Your task to perform on an android device: turn off airplane mode Image 0: 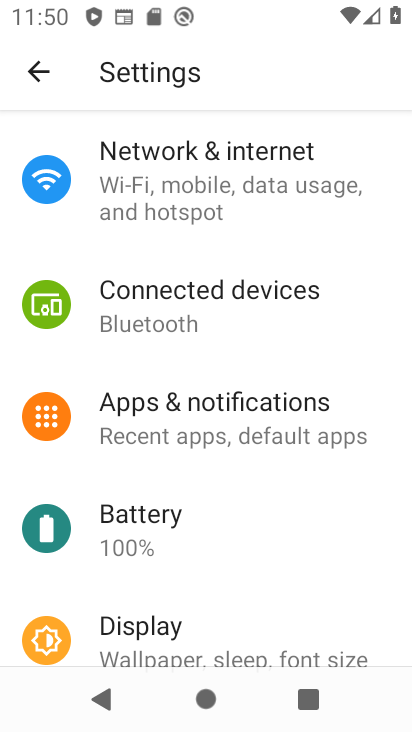
Step 0: press home button
Your task to perform on an android device: turn off airplane mode Image 1: 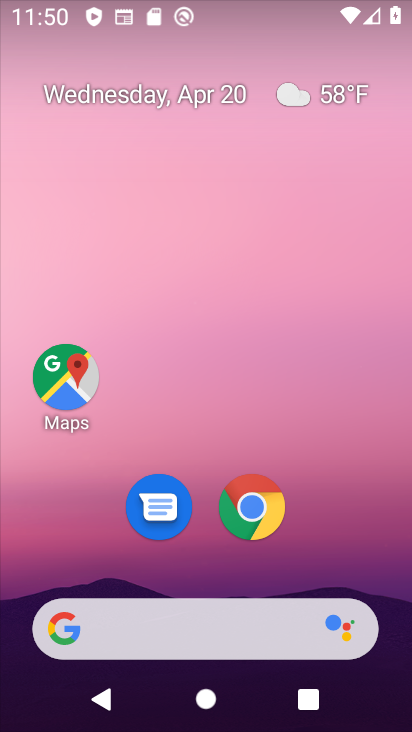
Step 1: drag from (350, 482) to (340, 100)
Your task to perform on an android device: turn off airplane mode Image 2: 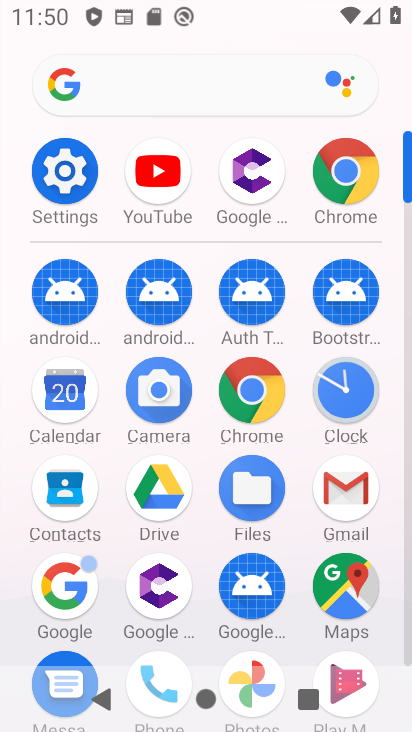
Step 2: click (73, 173)
Your task to perform on an android device: turn off airplane mode Image 3: 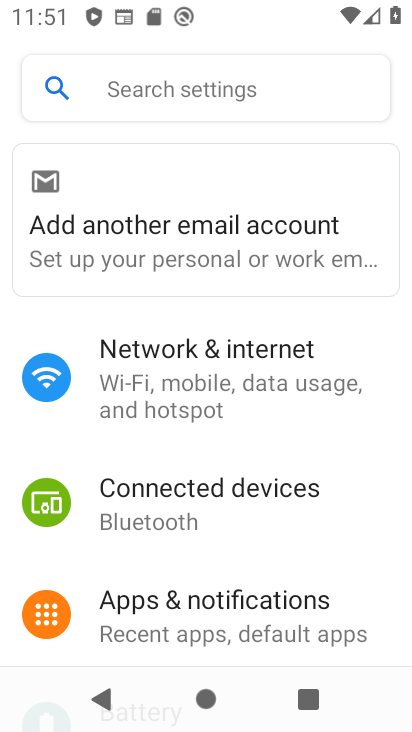
Step 3: drag from (375, 521) to (383, 341)
Your task to perform on an android device: turn off airplane mode Image 4: 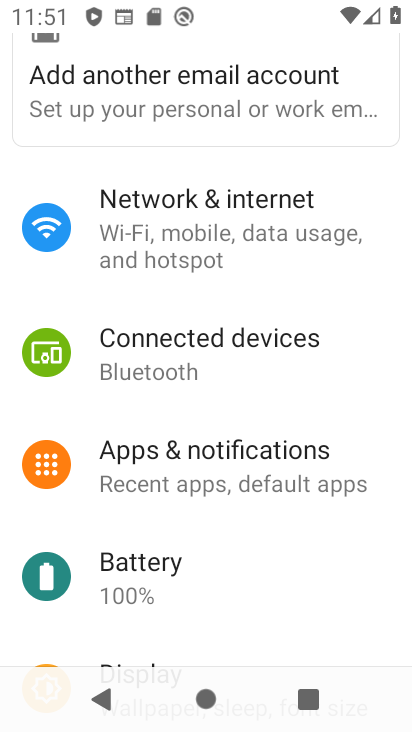
Step 4: drag from (378, 540) to (371, 304)
Your task to perform on an android device: turn off airplane mode Image 5: 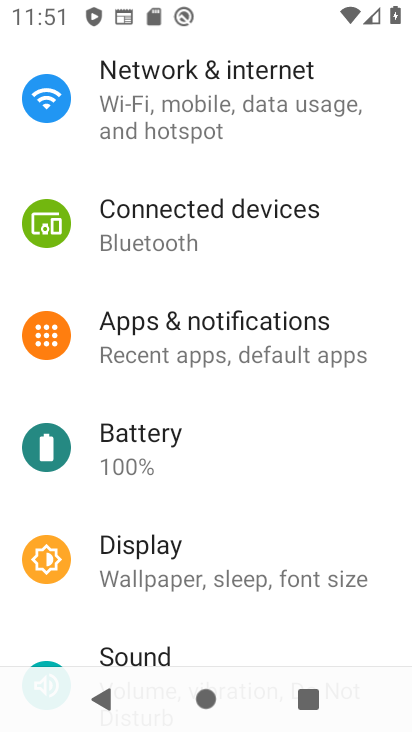
Step 5: drag from (362, 567) to (367, 342)
Your task to perform on an android device: turn off airplane mode Image 6: 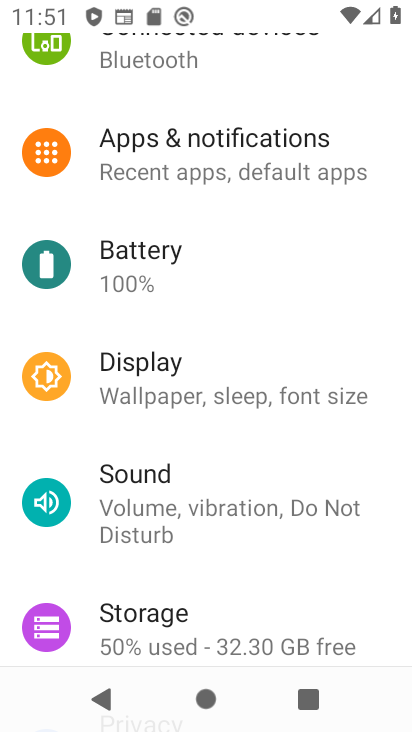
Step 6: drag from (344, 574) to (357, 344)
Your task to perform on an android device: turn off airplane mode Image 7: 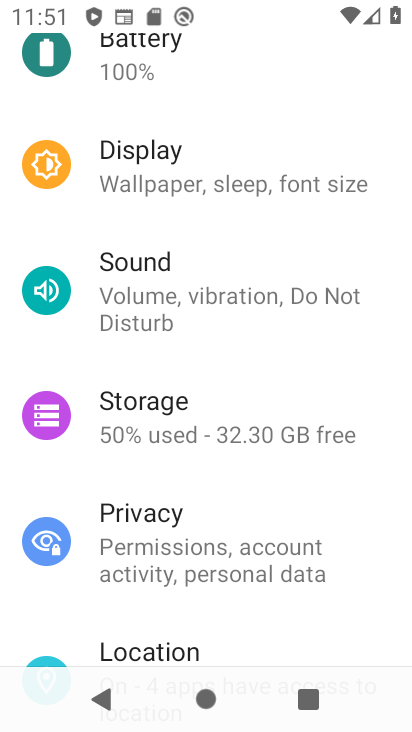
Step 7: drag from (360, 542) to (367, 344)
Your task to perform on an android device: turn off airplane mode Image 8: 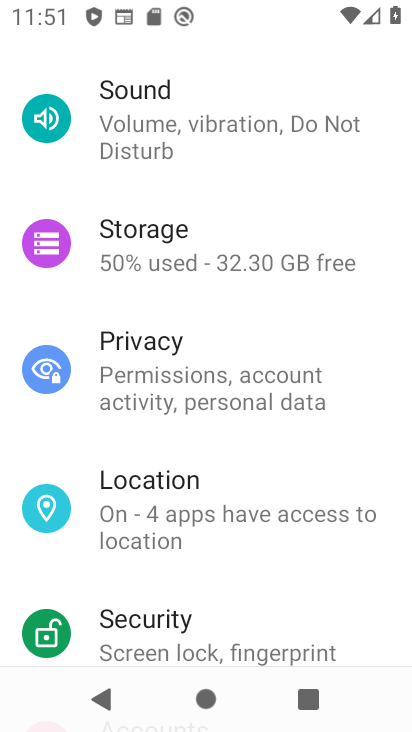
Step 8: drag from (361, 527) to (371, 389)
Your task to perform on an android device: turn off airplane mode Image 9: 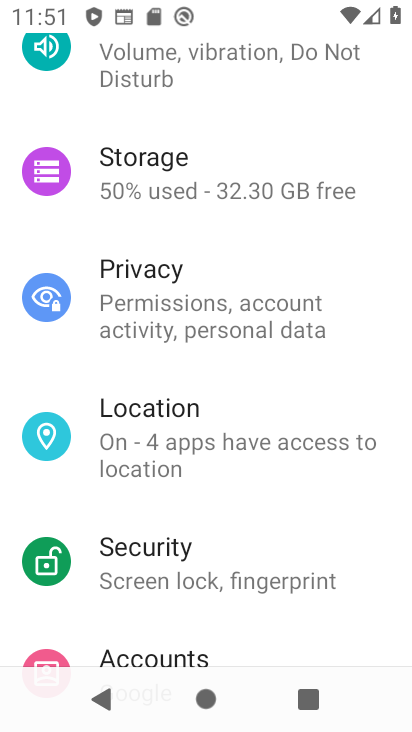
Step 9: drag from (377, 503) to (380, 291)
Your task to perform on an android device: turn off airplane mode Image 10: 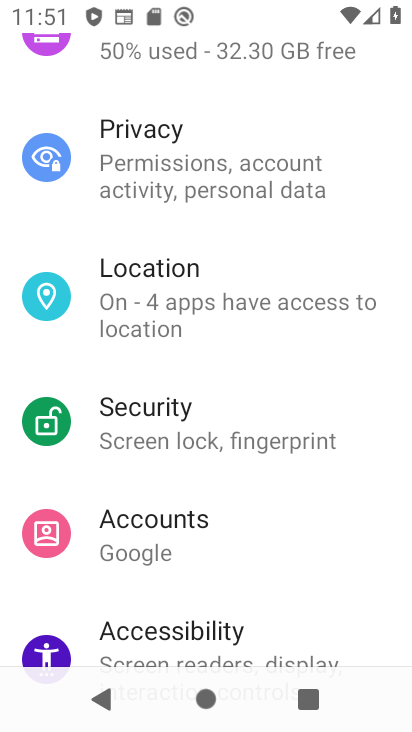
Step 10: drag from (377, 203) to (331, 433)
Your task to perform on an android device: turn off airplane mode Image 11: 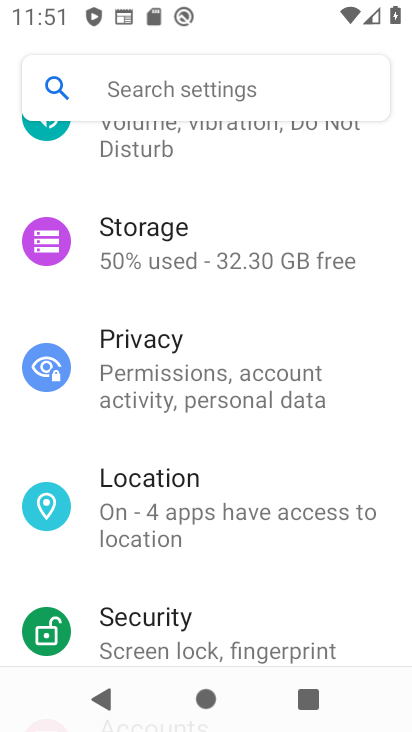
Step 11: drag from (377, 206) to (352, 321)
Your task to perform on an android device: turn off airplane mode Image 12: 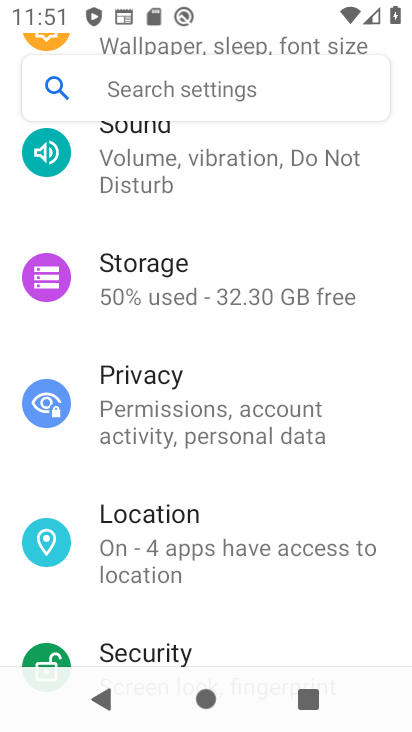
Step 12: drag from (379, 217) to (365, 328)
Your task to perform on an android device: turn off airplane mode Image 13: 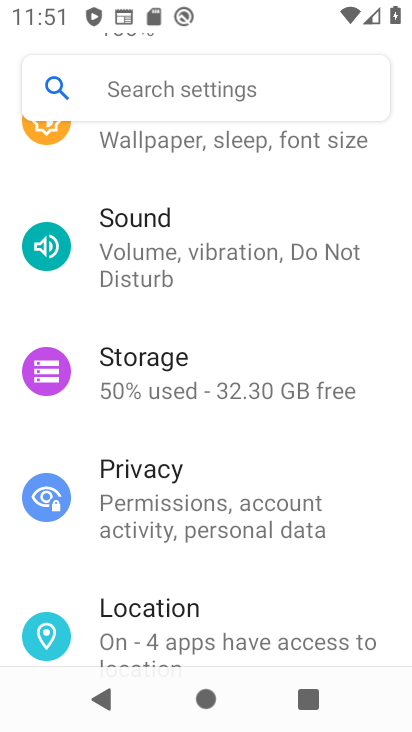
Step 13: click (373, 273)
Your task to perform on an android device: turn off airplane mode Image 14: 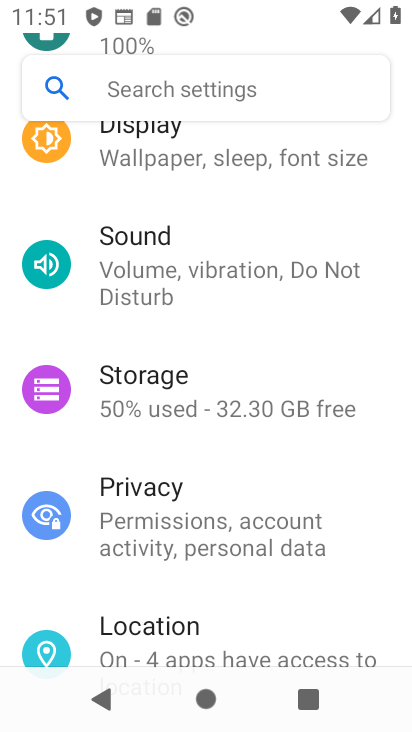
Step 14: drag from (381, 276) to (379, 411)
Your task to perform on an android device: turn off airplane mode Image 15: 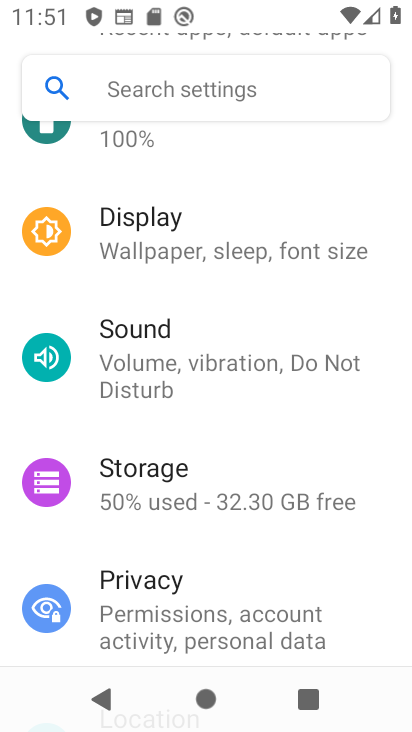
Step 15: drag from (382, 265) to (384, 322)
Your task to perform on an android device: turn off airplane mode Image 16: 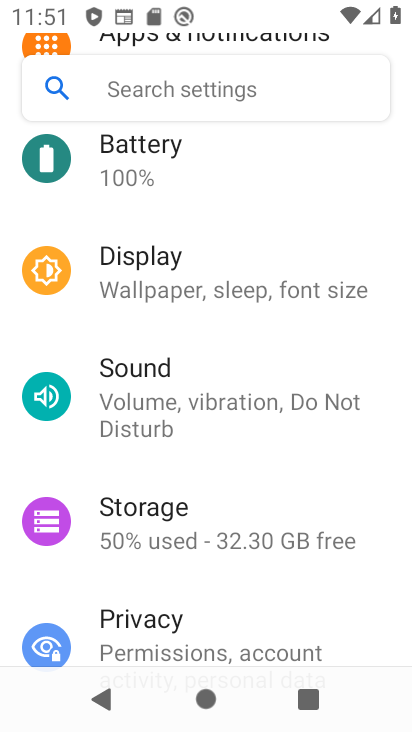
Step 16: drag from (384, 268) to (380, 358)
Your task to perform on an android device: turn off airplane mode Image 17: 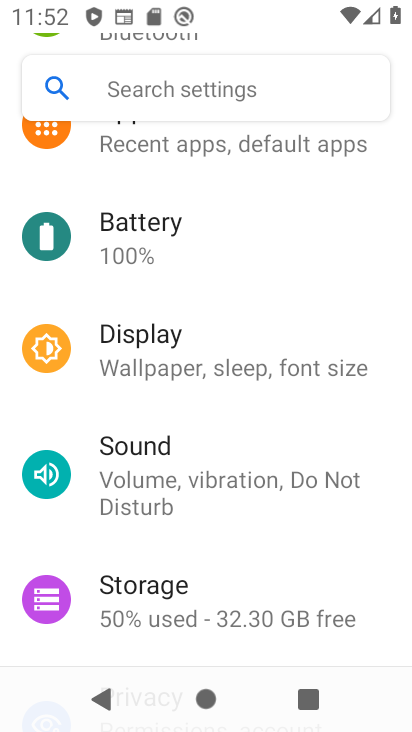
Step 17: drag from (380, 251) to (380, 435)
Your task to perform on an android device: turn off airplane mode Image 18: 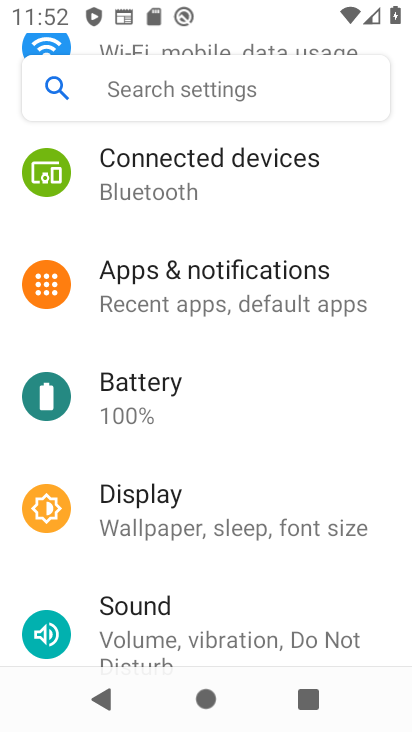
Step 18: drag from (385, 247) to (371, 376)
Your task to perform on an android device: turn off airplane mode Image 19: 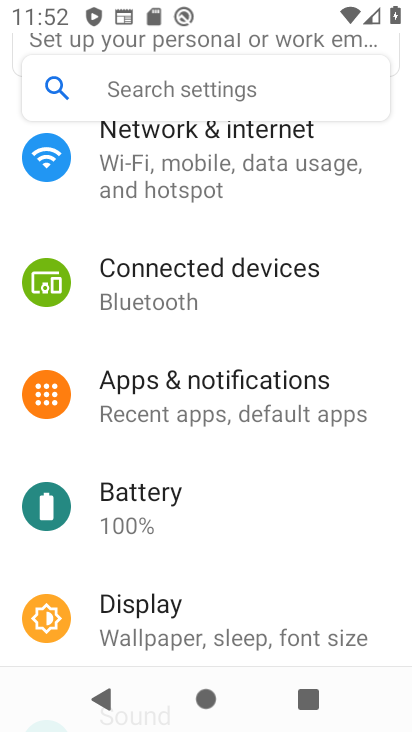
Step 19: drag from (385, 253) to (387, 339)
Your task to perform on an android device: turn off airplane mode Image 20: 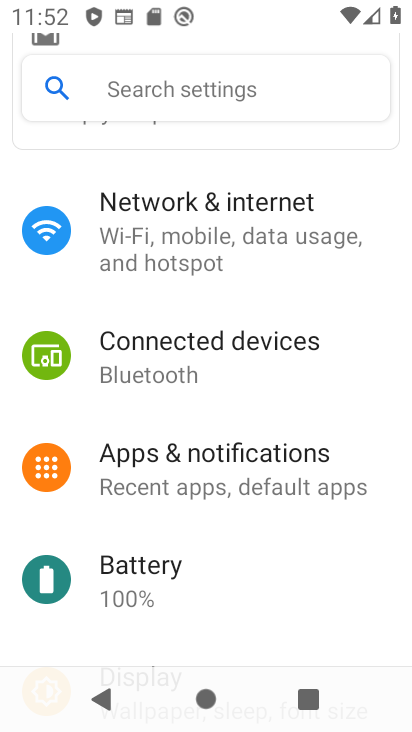
Step 20: click (304, 226)
Your task to perform on an android device: turn off airplane mode Image 21: 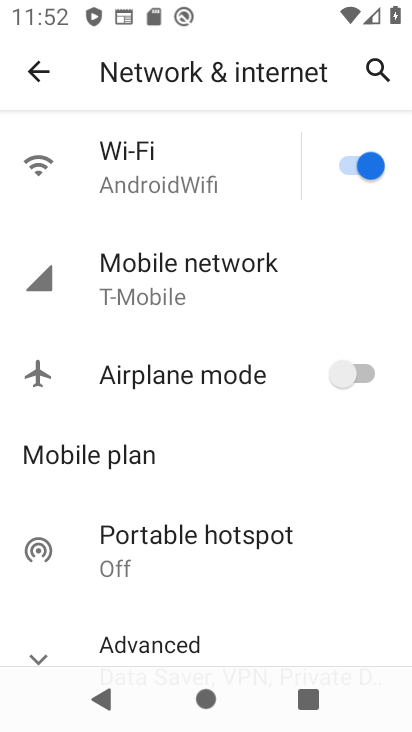
Step 21: task complete